Your task to perform on an android device: Do I have any events today? Image 0: 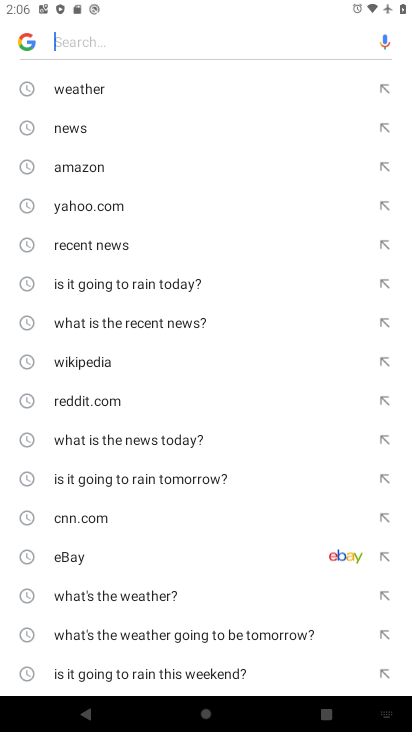
Step 0: press home button
Your task to perform on an android device: Do I have any events today? Image 1: 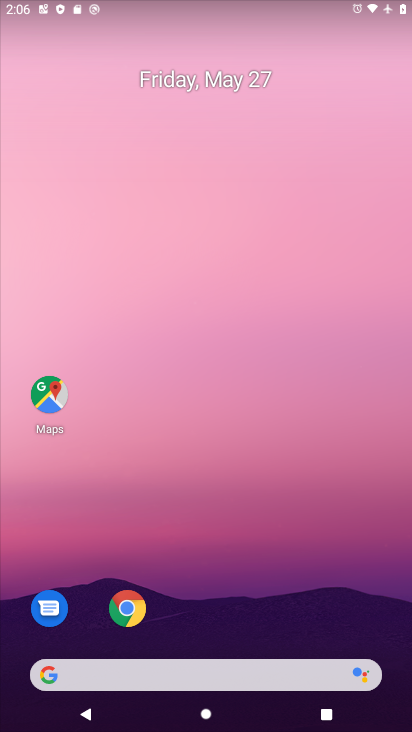
Step 1: drag from (134, 673) to (301, 121)
Your task to perform on an android device: Do I have any events today? Image 2: 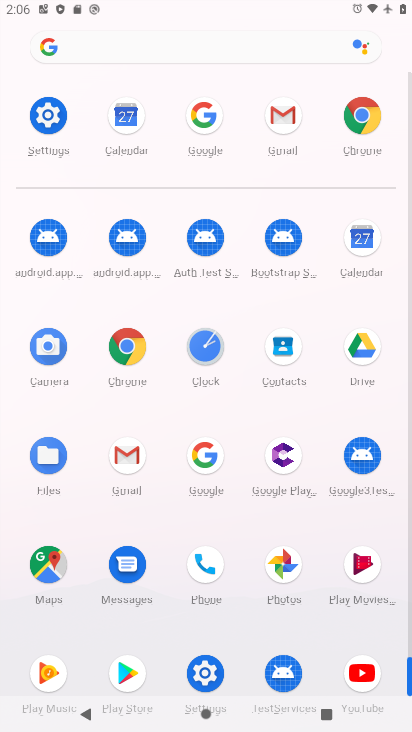
Step 2: click (359, 244)
Your task to perform on an android device: Do I have any events today? Image 3: 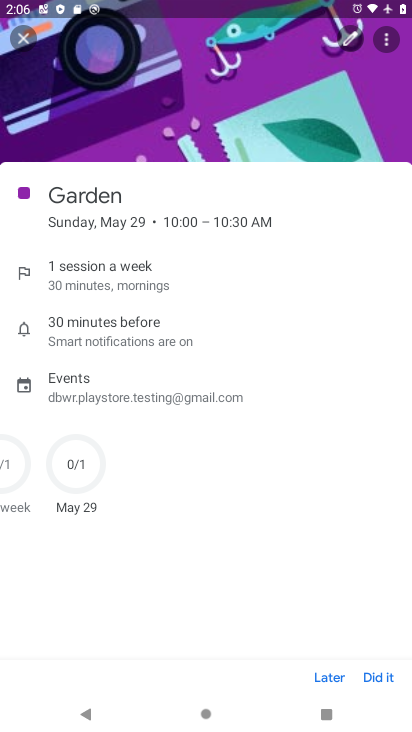
Step 3: click (14, 39)
Your task to perform on an android device: Do I have any events today? Image 4: 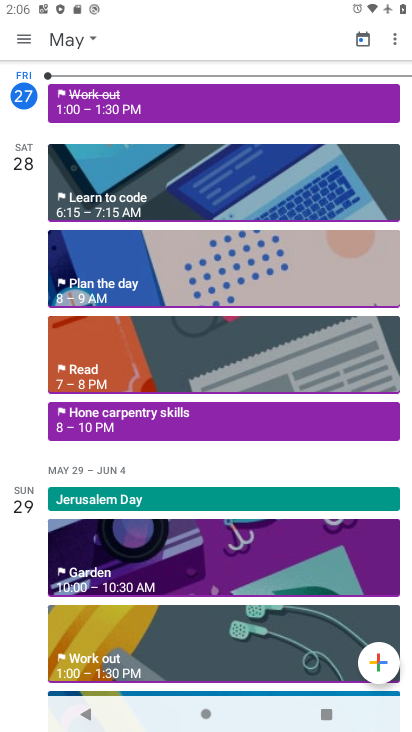
Step 4: click (63, 39)
Your task to perform on an android device: Do I have any events today? Image 5: 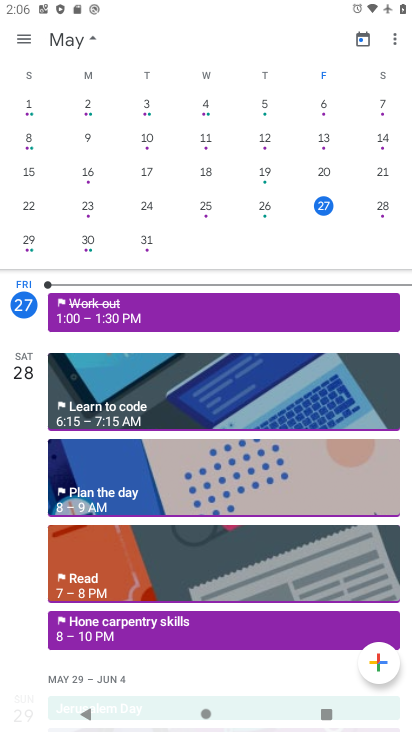
Step 5: click (325, 204)
Your task to perform on an android device: Do I have any events today? Image 6: 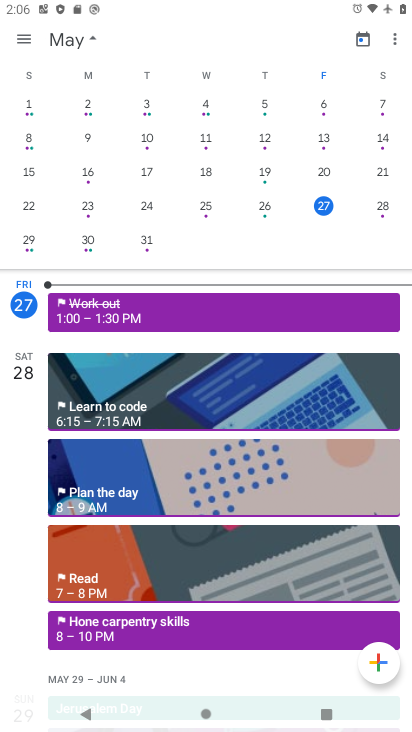
Step 6: click (26, 35)
Your task to perform on an android device: Do I have any events today? Image 7: 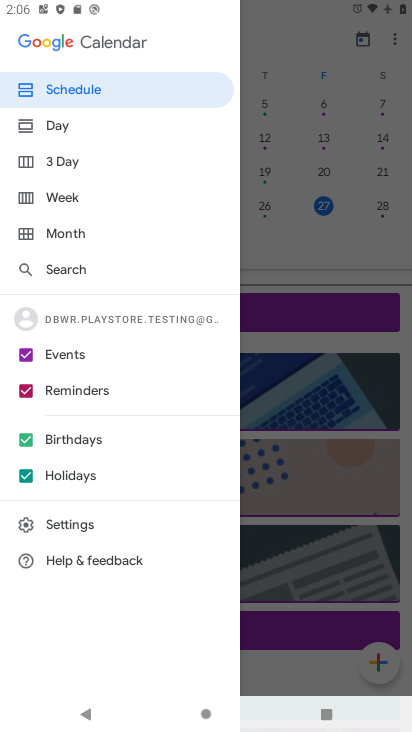
Step 7: click (56, 126)
Your task to perform on an android device: Do I have any events today? Image 8: 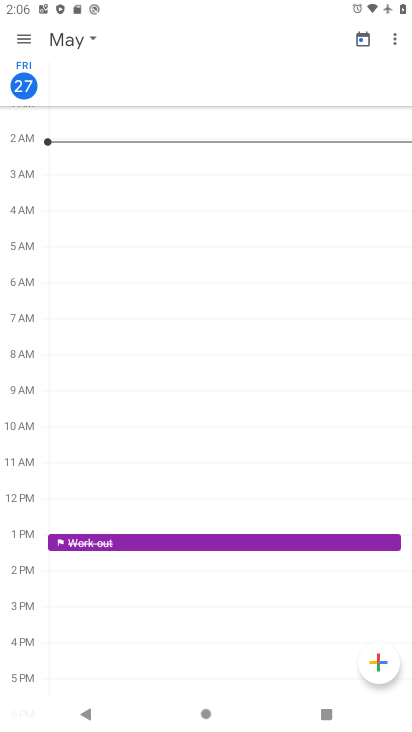
Step 8: click (20, 38)
Your task to perform on an android device: Do I have any events today? Image 9: 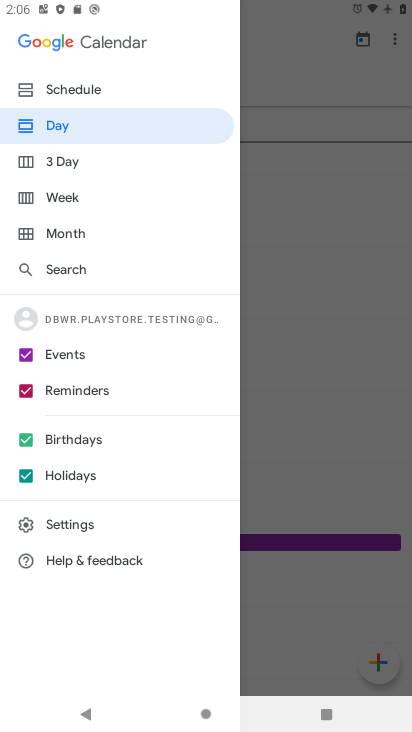
Step 9: click (86, 89)
Your task to perform on an android device: Do I have any events today? Image 10: 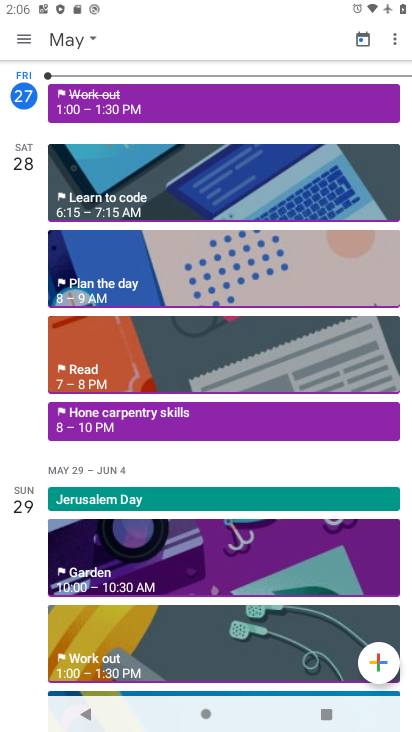
Step 10: click (161, 101)
Your task to perform on an android device: Do I have any events today? Image 11: 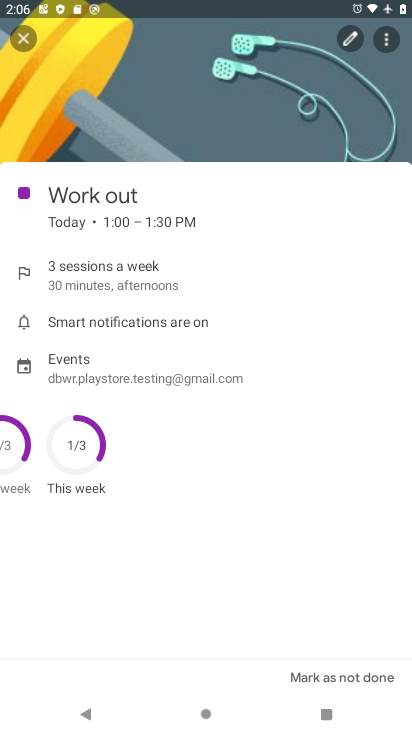
Step 11: task complete